Your task to perform on an android device: What's on my calendar tomorrow? Image 0: 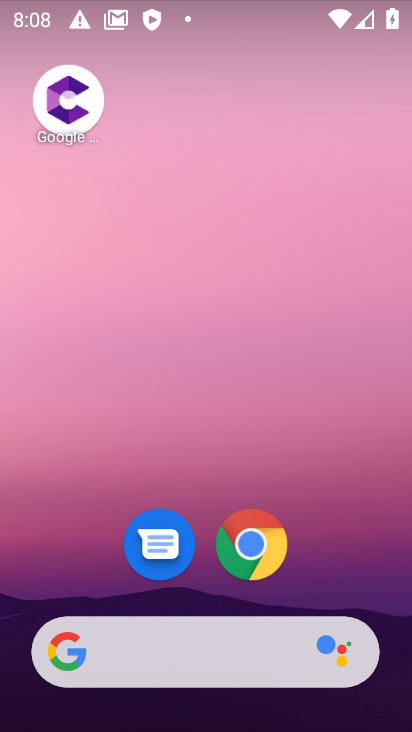
Step 0: drag from (202, 578) to (208, 127)
Your task to perform on an android device: What's on my calendar tomorrow? Image 1: 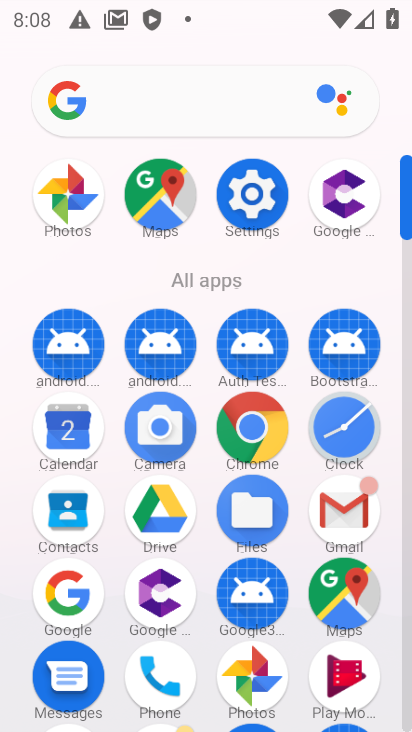
Step 1: click (63, 442)
Your task to perform on an android device: What's on my calendar tomorrow? Image 2: 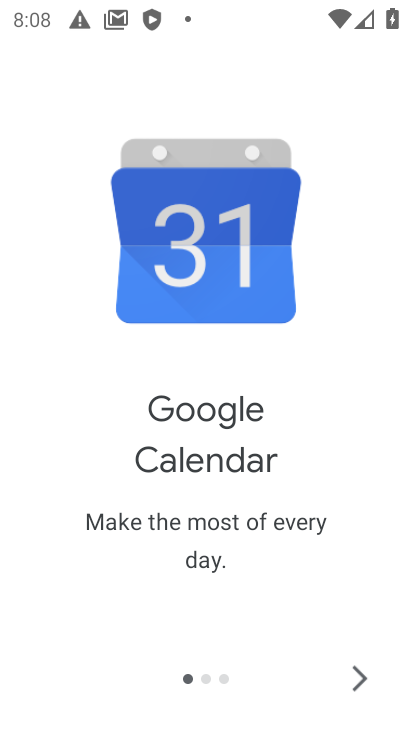
Step 2: click (346, 659)
Your task to perform on an android device: What's on my calendar tomorrow? Image 3: 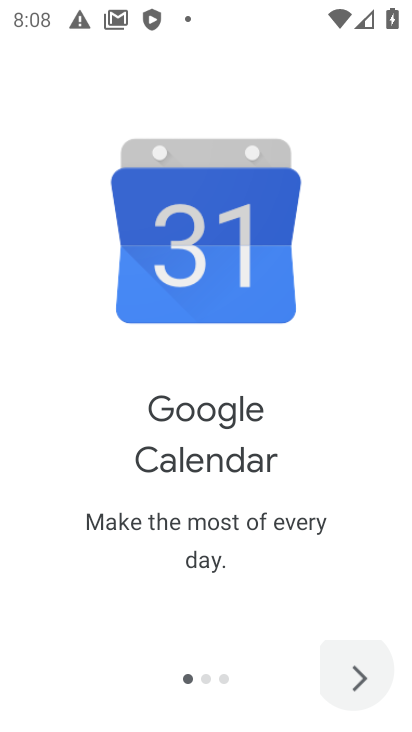
Step 3: click (346, 659)
Your task to perform on an android device: What's on my calendar tomorrow? Image 4: 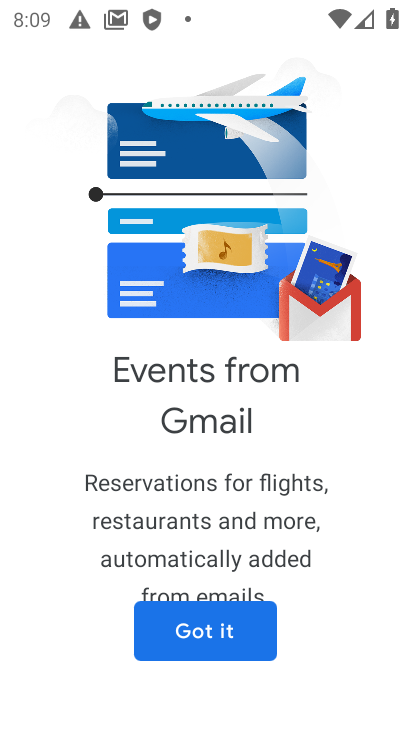
Step 4: click (255, 639)
Your task to perform on an android device: What's on my calendar tomorrow? Image 5: 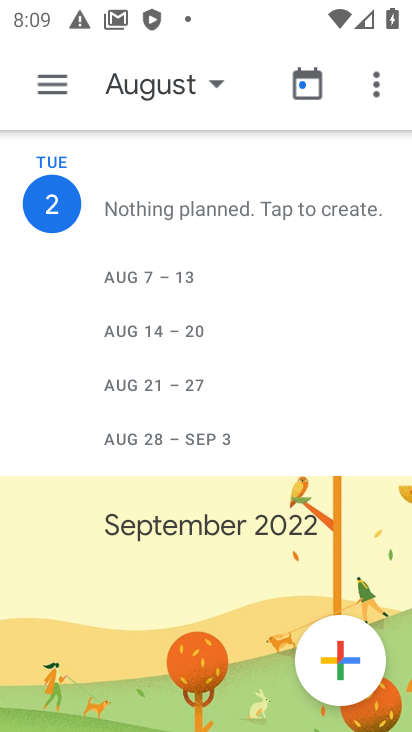
Step 5: click (206, 91)
Your task to perform on an android device: What's on my calendar tomorrow? Image 6: 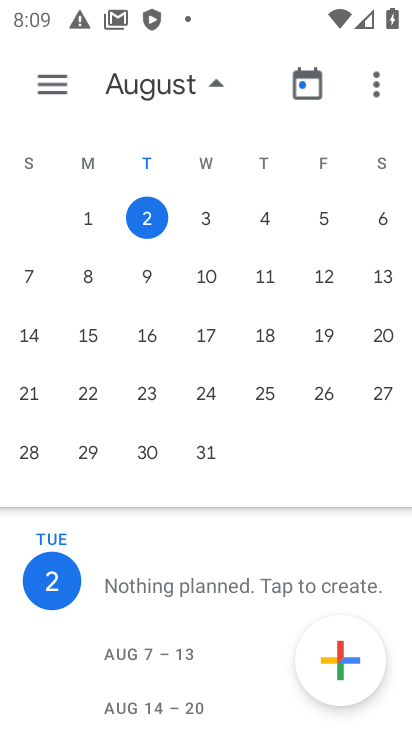
Step 6: click (200, 213)
Your task to perform on an android device: What's on my calendar tomorrow? Image 7: 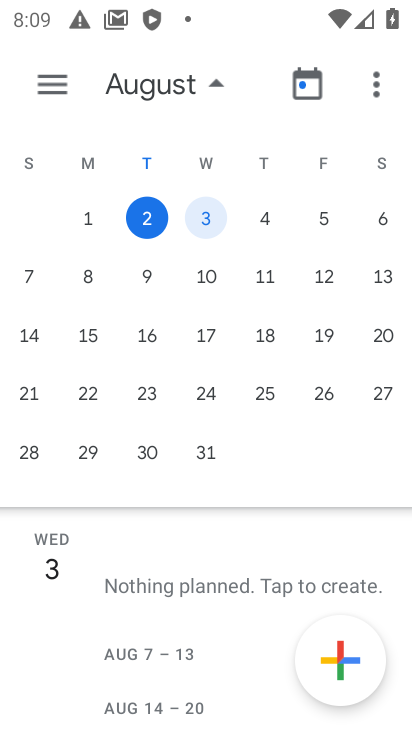
Step 7: click (47, 86)
Your task to perform on an android device: What's on my calendar tomorrow? Image 8: 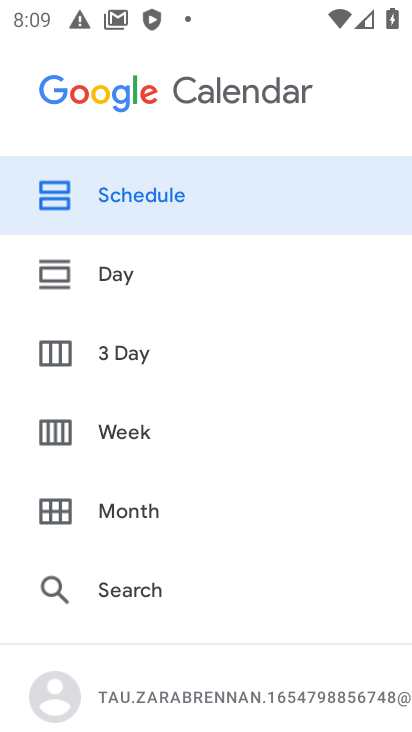
Step 8: click (256, 207)
Your task to perform on an android device: What's on my calendar tomorrow? Image 9: 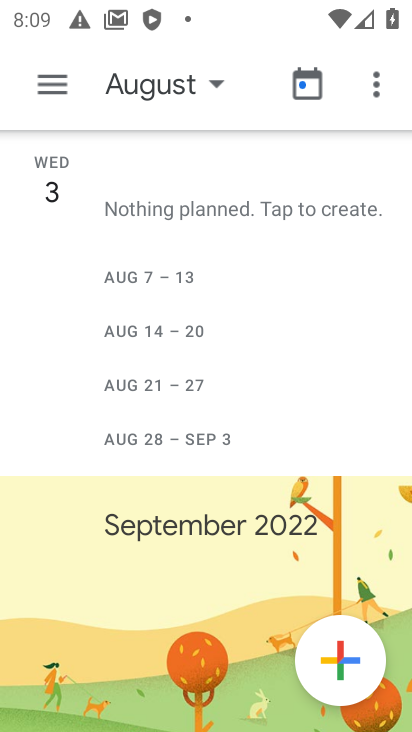
Step 9: task complete